Your task to perform on an android device: Install the Twitter app Image 0: 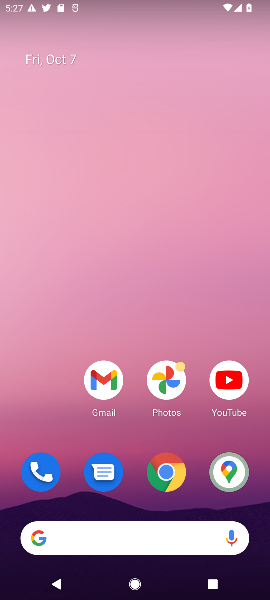
Step 0: drag from (230, 433) to (197, 197)
Your task to perform on an android device: Install the Twitter app Image 1: 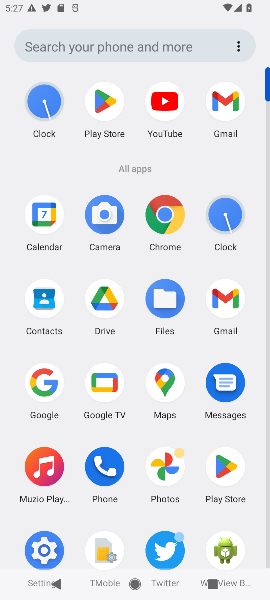
Step 1: click (107, 109)
Your task to perform on an android device: Install the Twitter app Image 2: 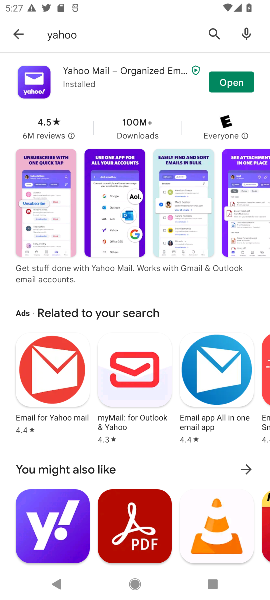
Step 2: click (219, 32)
Your task to perform on an android device: Install the Twitter app Image 3: 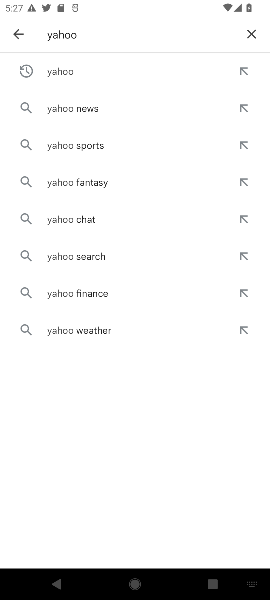
Step 3: click (255, 34)
Your task to perform on an android device: Install the Twitter app Image 4: 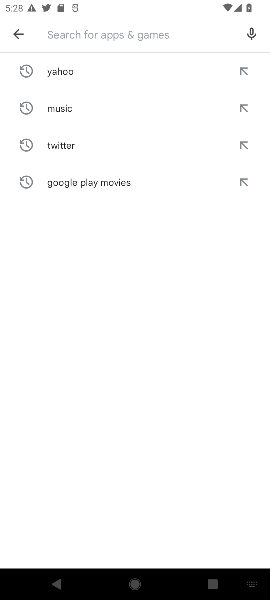
Step 4: type "twittert"
Your task to perform on an android device: Install the Twitter app Image 5: 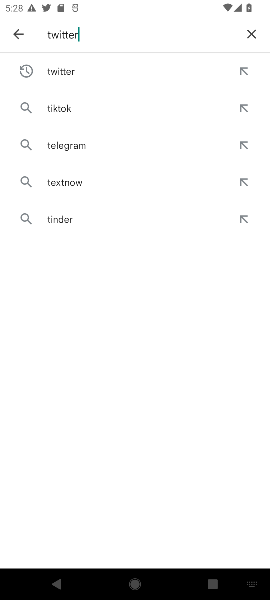
Step 5: type ""
Your task to perform on an android device: Install the Twitter app Image 6: 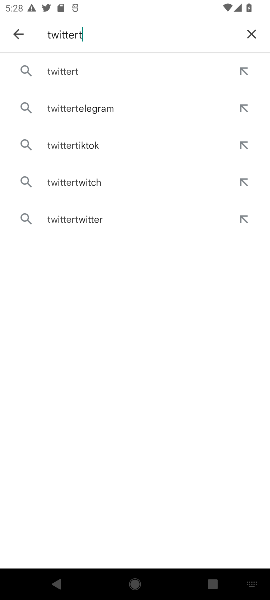
Step 6: click (100, 76)
Your task to perform on an android device: Install the Twitter app Image 7: 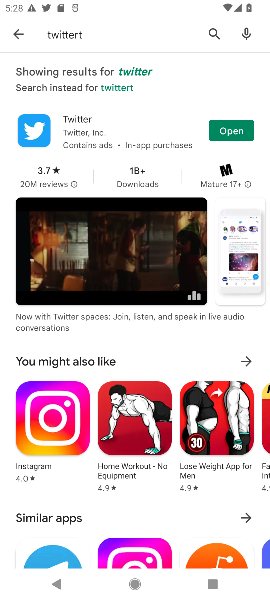
Step 7: task complete